Your task to perform on an android device: Set the phone to "Do not disturb". Image 0: 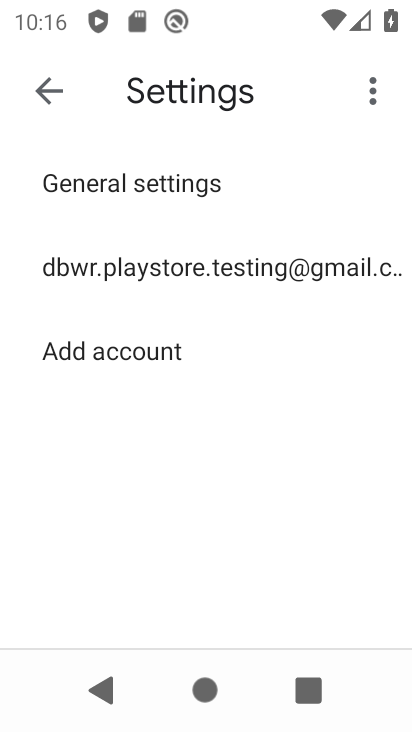
Step 0: press home button
Your task to perform on an android device: Set the phone to "Do not disturb". Image 1: 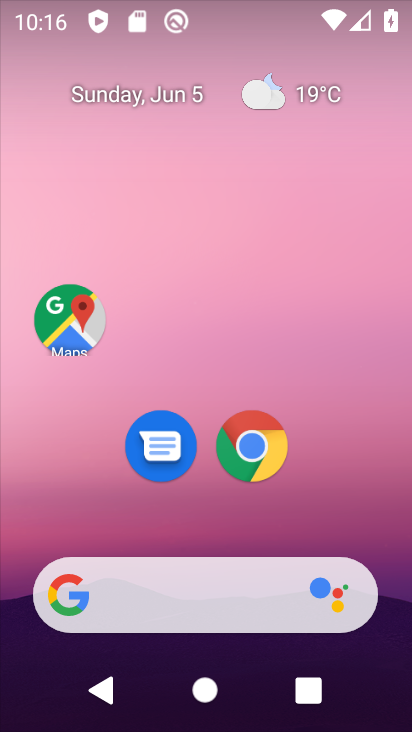
Step 1: drag from (186, 498) to (190, 4)
Your task to perform on an android device: Set the phone to "Do not disturb". Image 2: 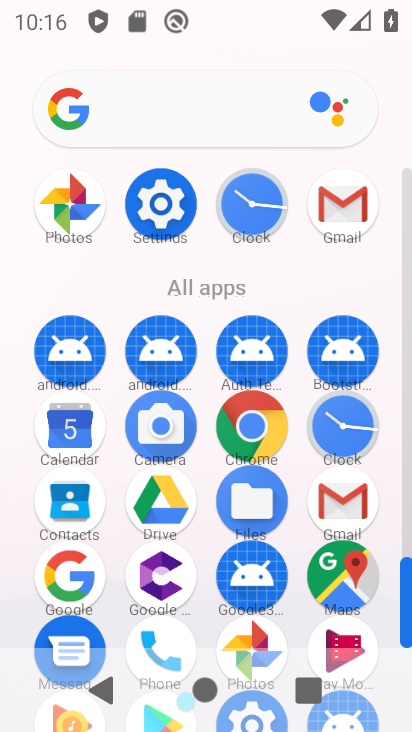
Step 2: click (164, 205)
Your task to perform on an android device: Set the phone to "Do not disturb". Image 3: 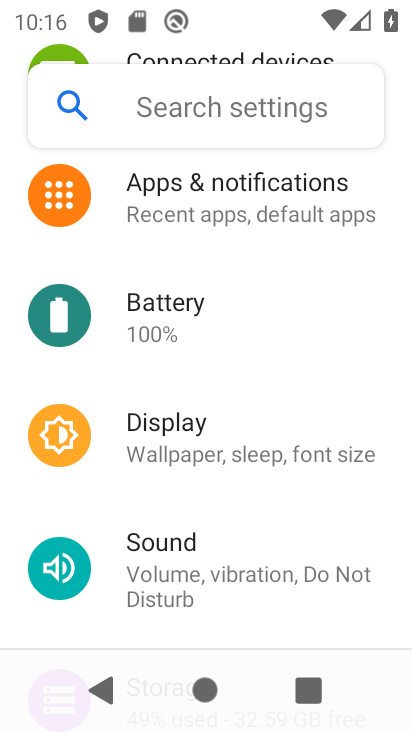
Step 3: click (229, 571)
Your task to perform on an android device: Set the phone to "Do not disturb". Image 4: 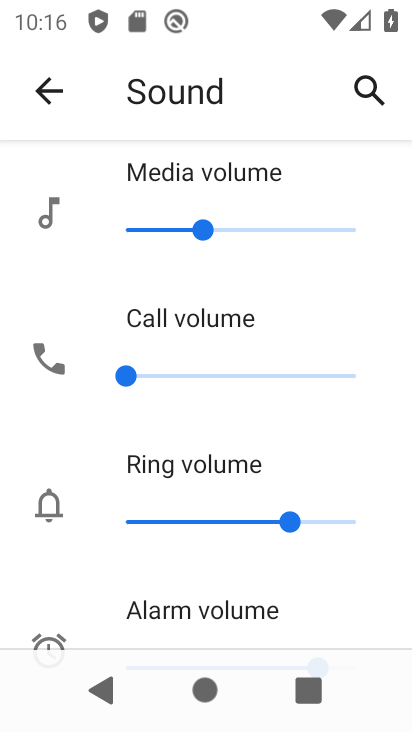
Step 4: drag from (281, 573) to (269, 63)
Your task to perform on an android device: Set the phone to "Do not disturb". Image 5: 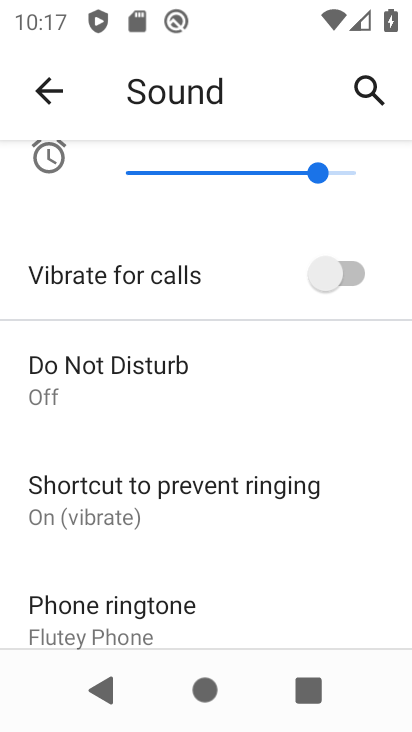
Step 5: click (182, 397)
Your task to perform on an android device: Set the phone to "Do not disturb". Image 6: 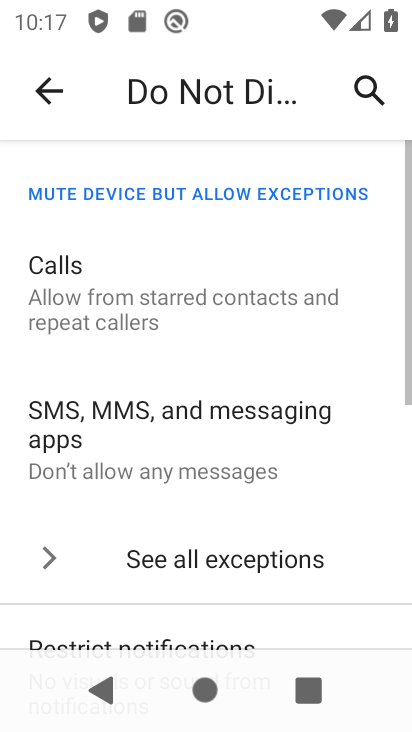
Step 6: drag from (169, 587) to (165, 35)
Your task to perform on an android device: Set the phone to "Do not disturb". Image 7: 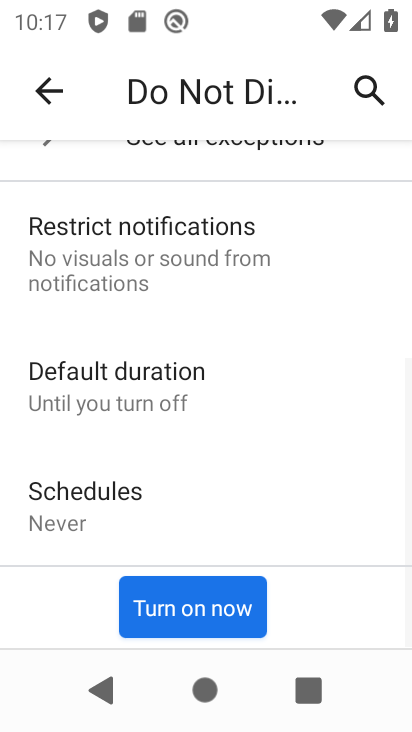
Step 7: click (149, 596)
Your task to perform on an android device: Set the phone to "Do not disturb". Image 8: 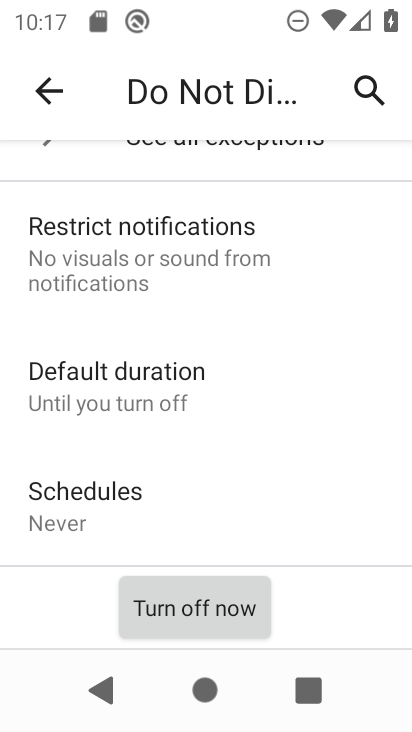
Step 8: task complete